Your task to perform on an android device: find snoozed emails in the gmail app Image 0: 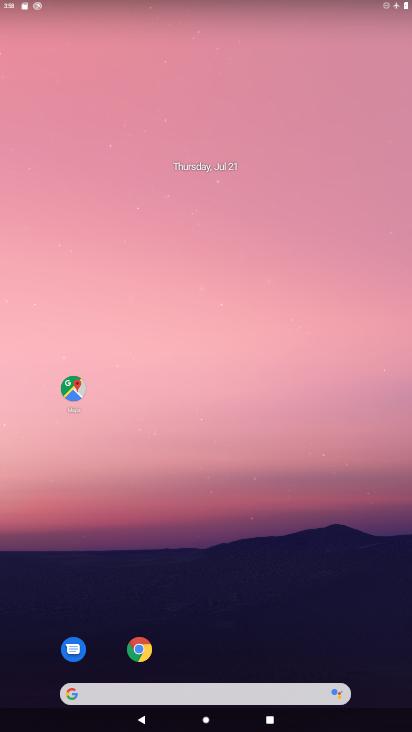
Step 0: drag from (225, 658) to (138, 167)
Your task to perform on an android device: find snoozed emails in the gmail app Image 1: 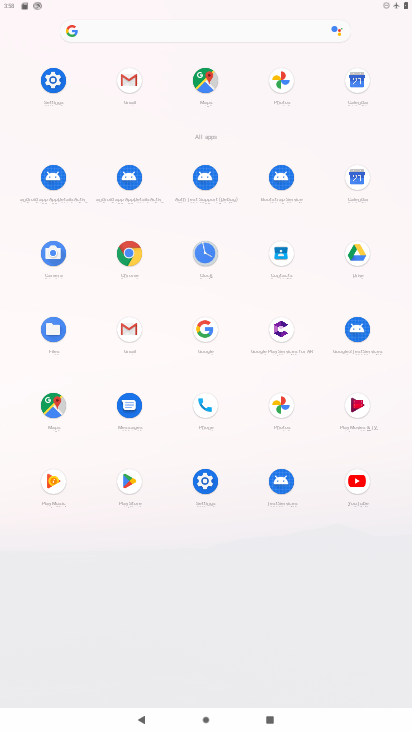
Step 1: click (127, 335)
Your task to perform on an android device: find snoozed emails in the gmail app Image 2: 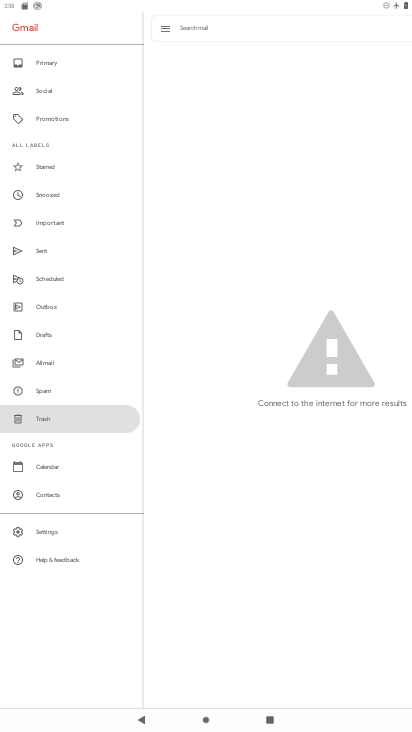
Step 2: click (51, 197)
Your task to perform on an android device: find snoozed emails in the gmail app Image 3: 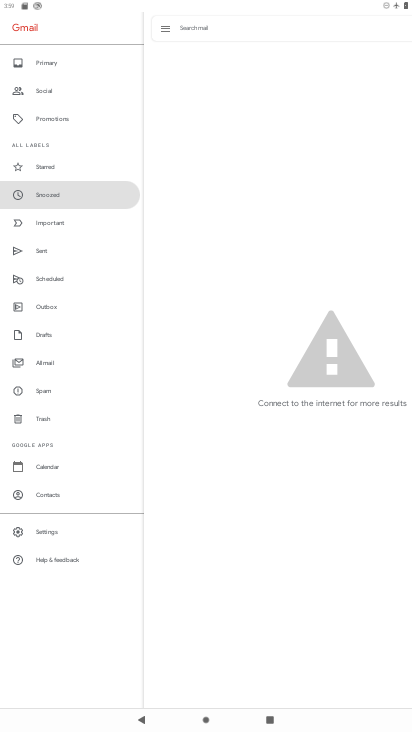
Step 3: task complete